Your task to perform on an android device: turn off translation in the chrome app Image 0: 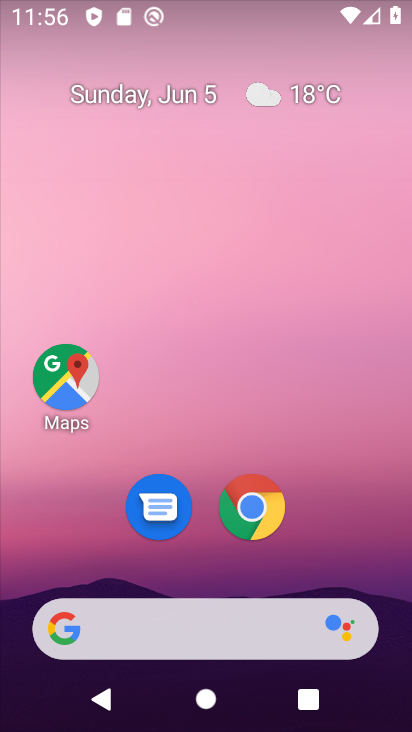
Step 0: click (266, 501)
Your task to perform on an android device: turn off translation in the chrome app Image 1: 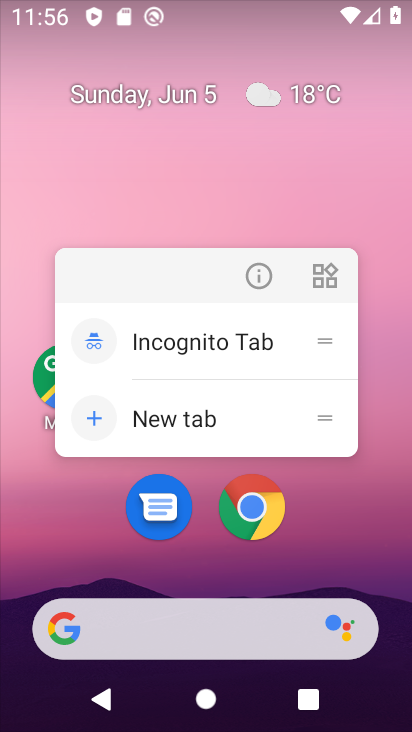
Step 1: click (258, 505)
Your task to perform on an android device: turn off translation in the chrome app Image 2: 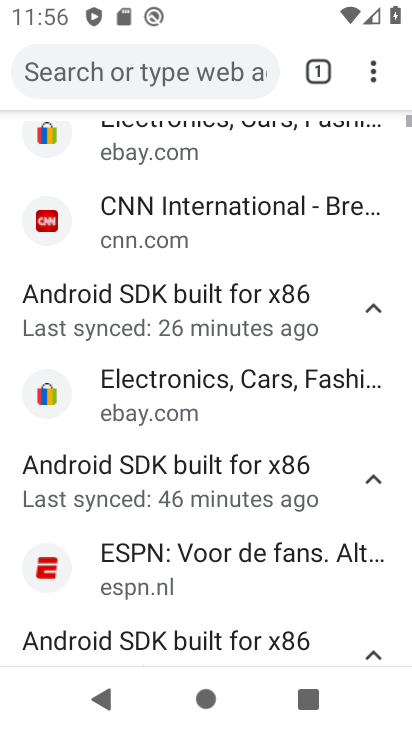
Step 2: click (371, 70)
Your task to perform on an android device: turn off translation in the chrome app Image 3: 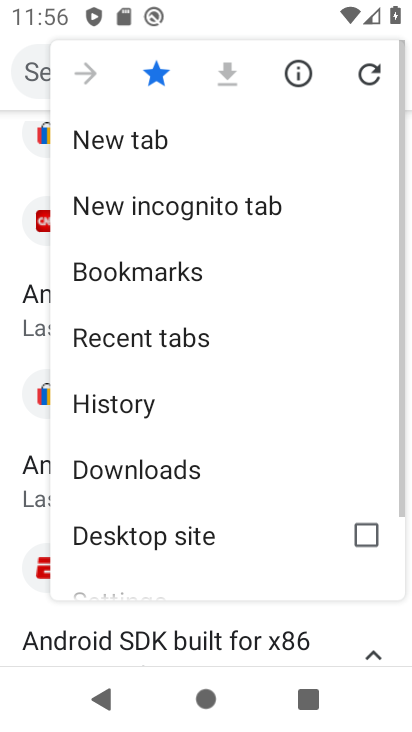
Step 3: drag from (181, 539) to (228, 166)
Your task to perform on an android device: turn off translation in the chrome app Image 4: 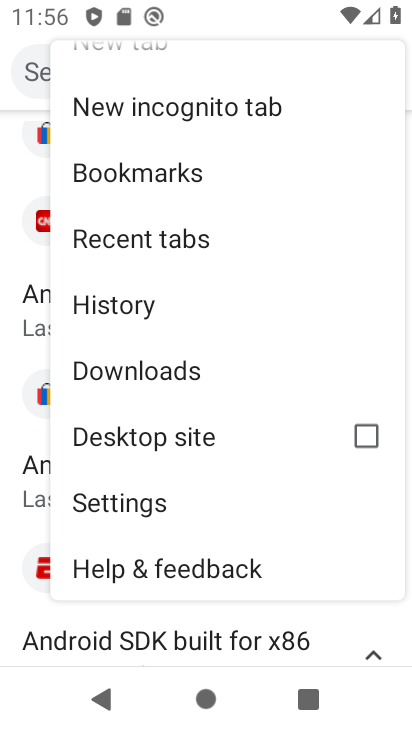
Step 4: click (152, 510)
Your task to perform on an android device: turn off translation in the chrome app Image 5: 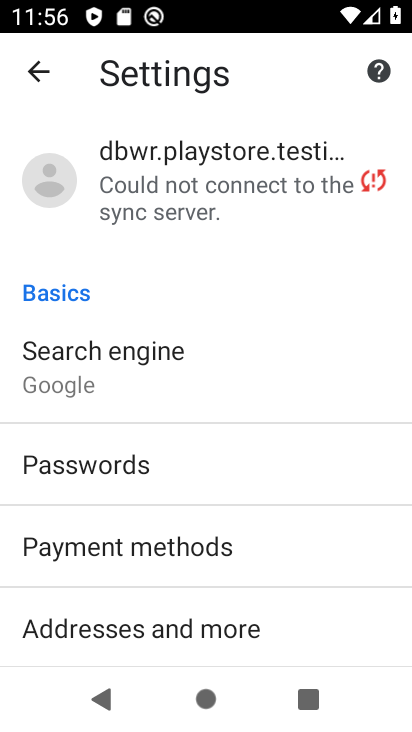
Step 5: drag from (207, 560) to (214, 298)
Your task to perform on an android device: turn off translation in the chrome app Image 6: 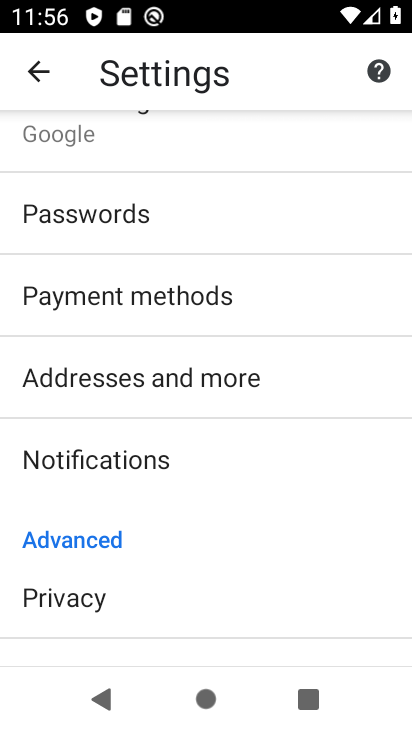
Step 6: drag from (166, 557) to (200, 330)
Your task to perform on an android device: turn off translation in the chrome app Image 7: 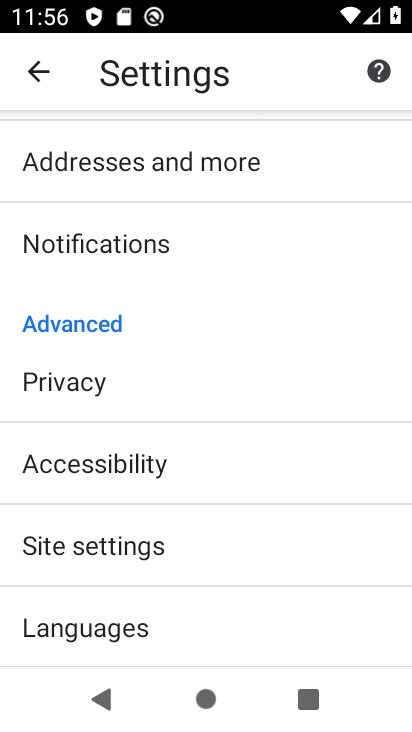
Step 7: click (107, 633)
Your task to perform on an android device: turn off translation in the chrome app Image 8: 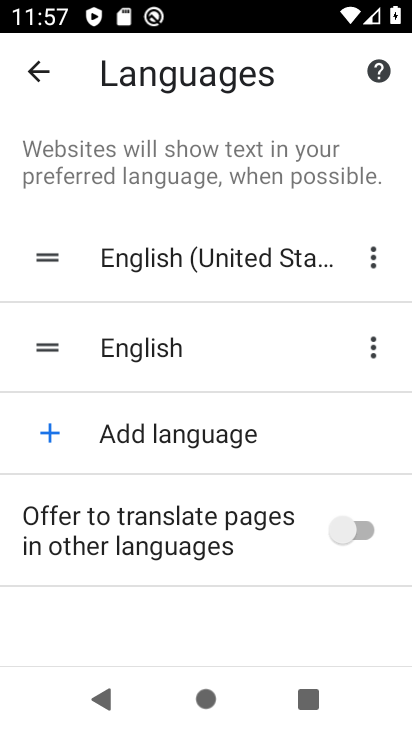
Step 8: task complete